Your task to perform on an android device: turn on showing notifications on the lock screen Image 0: 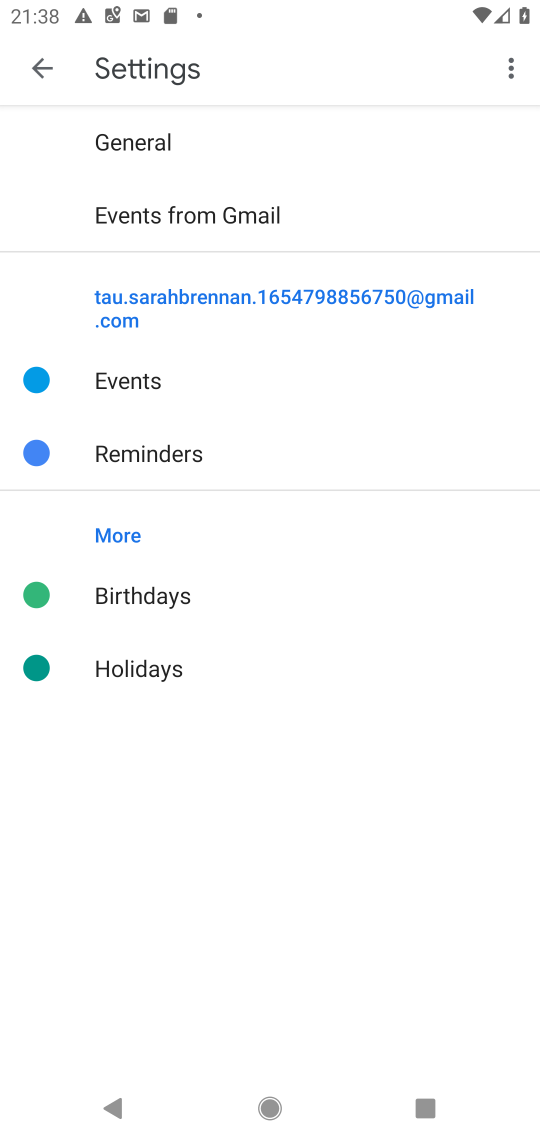
Step 0: press home button
Your task to perform on an android device: turn on showing notifications on the lock screen Image 1: 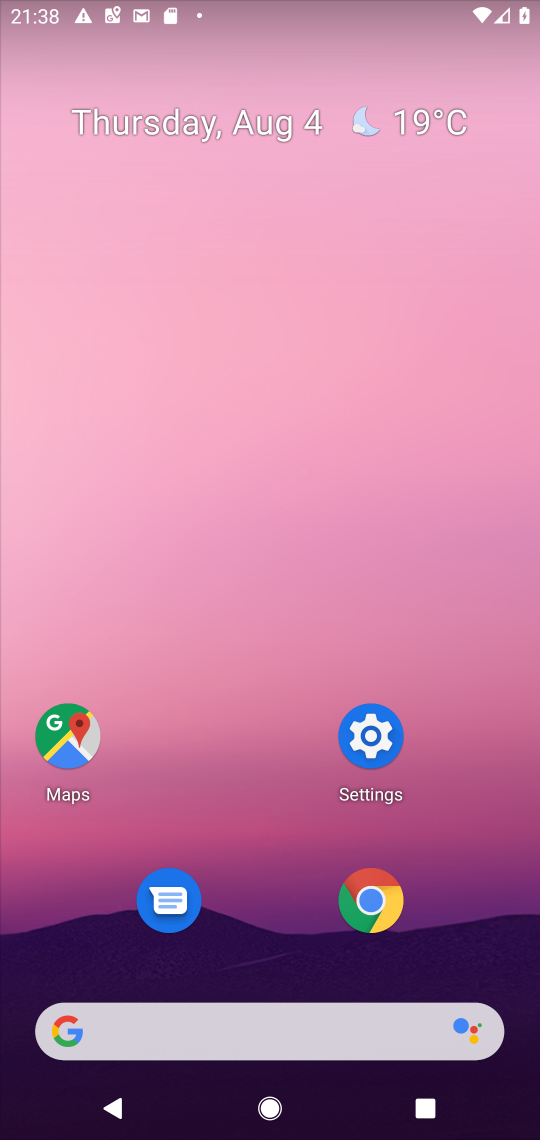
Step 1: click (373, 743)
Your task to perform on an android device: turn on showing notifications on the lock screen Image 2: 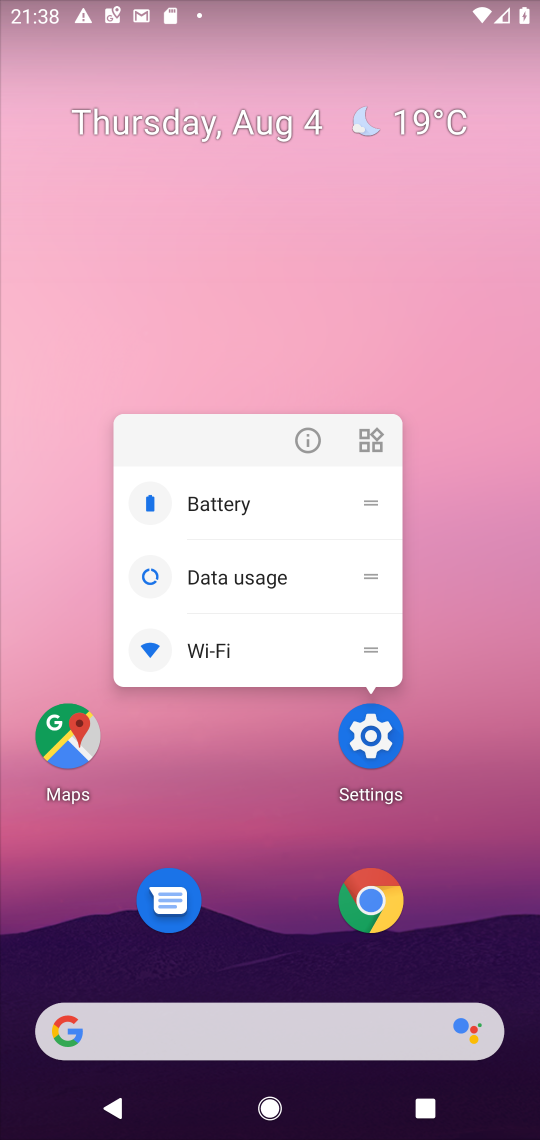
Step 2: click (373, 745)
Your task to perform on an android device: turn on showing notifications on the lock screen Image 3: 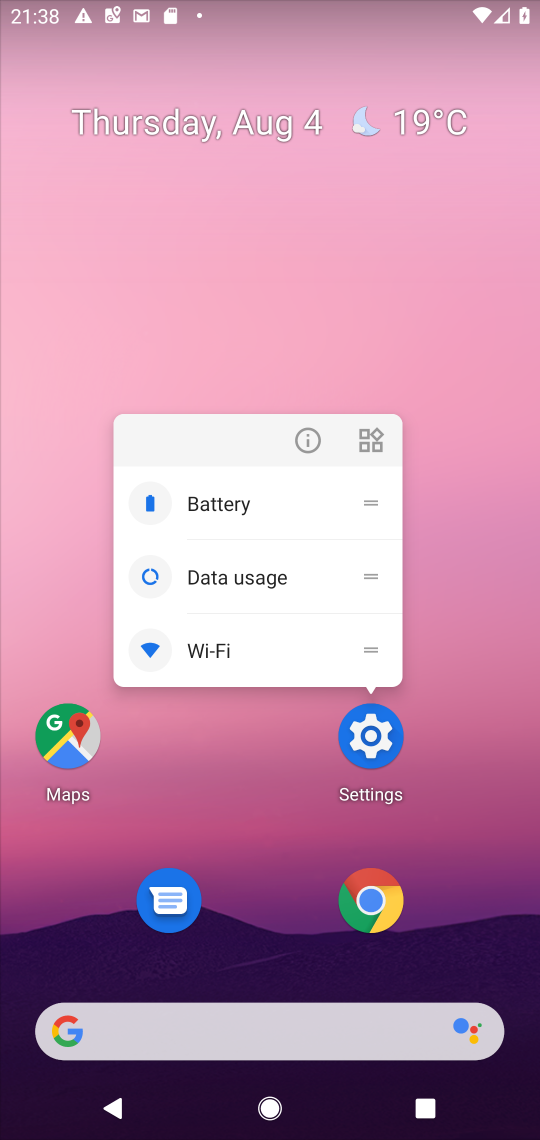
Step 3: click (373, 748)
Your task to perform on an android device: turn on showing notifications on the lock screen Image 4: 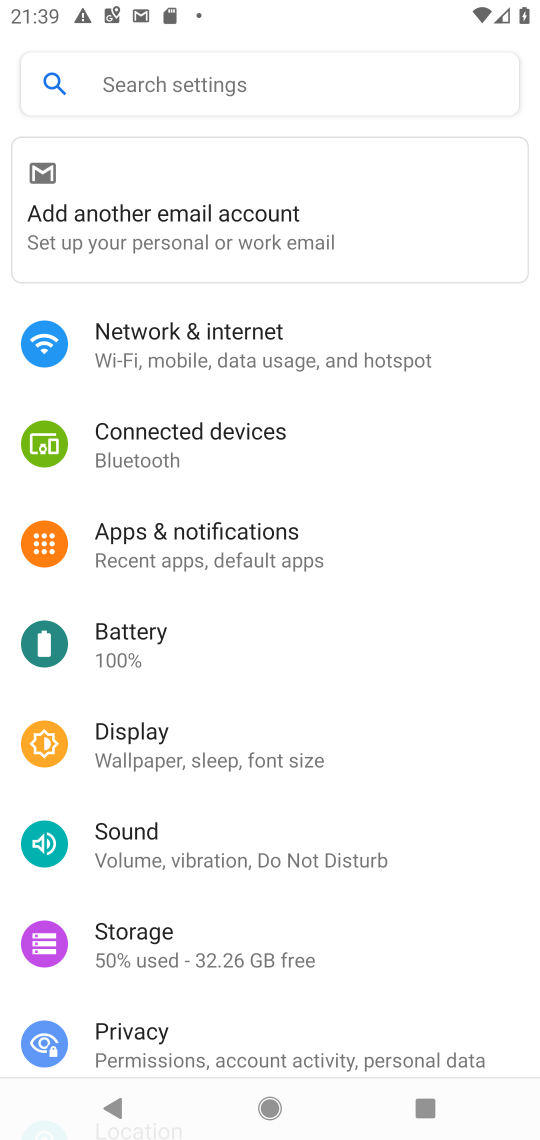
Step 4: click (214, 543)
Your task to perform on an android device: turn on showing notifications on the lock screen Image 5: 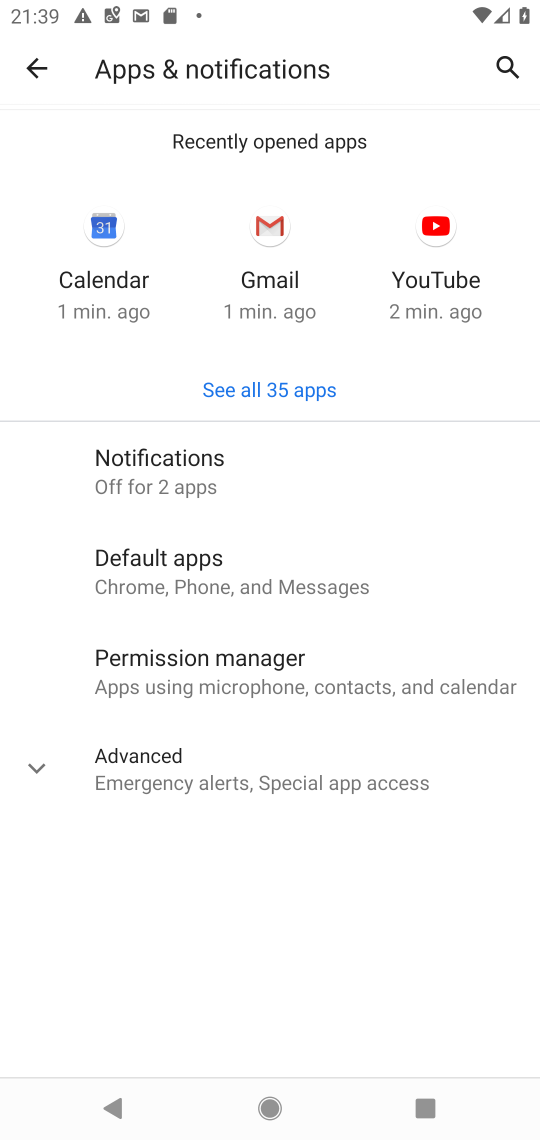
Step 5: click (185, 476)
Your task to perform on an android device: turn on showing notifications on the lock screen Image 6: 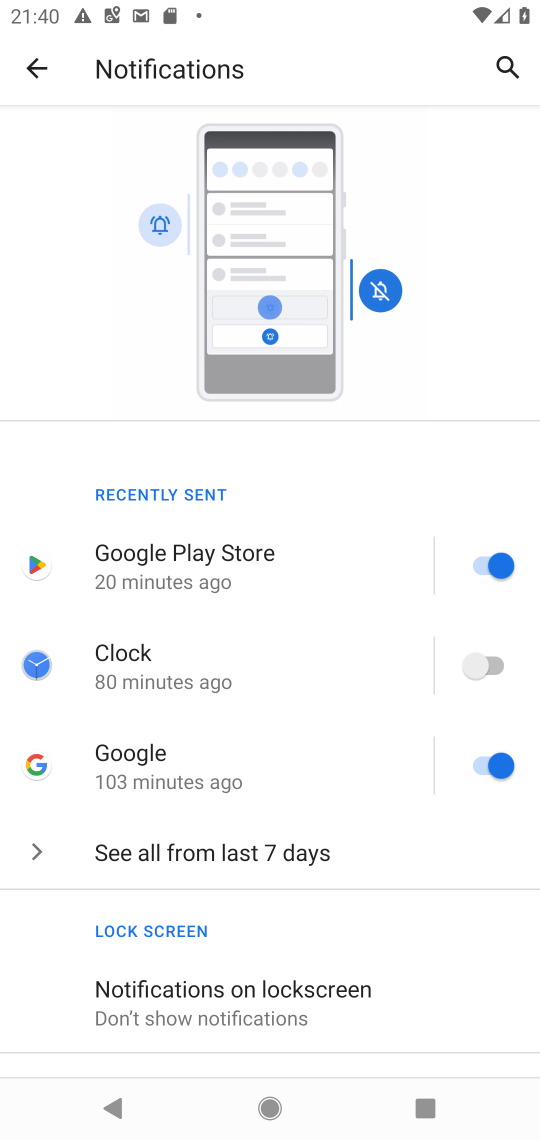
Step 6: click (254, 984)
Your task to perform on an android device: turn on showing notifications on the lock screen Image 7: 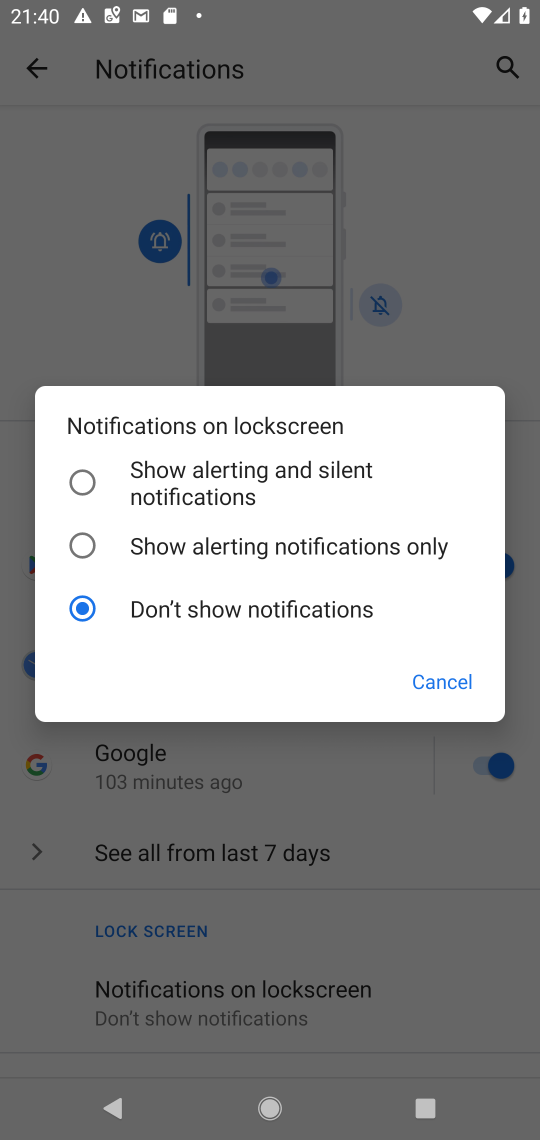
Step 7: click (79, 481)
Your task to perform on an android device: turn on showing notifications on the lock screen Image 8: 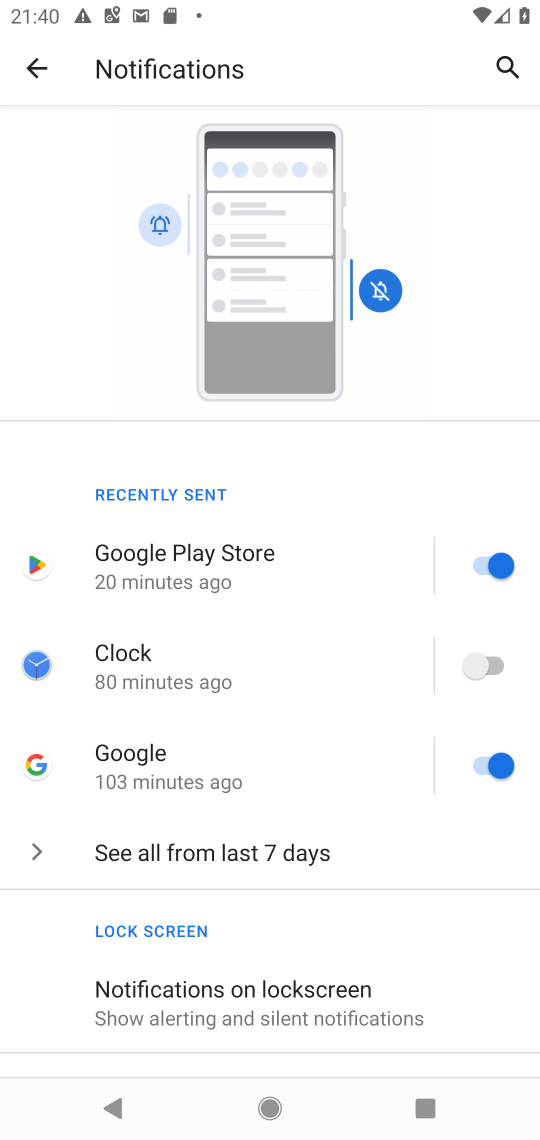
Step 8: task complete